Your task to perform on an android device: change notification settings in the gmail app Image 0: 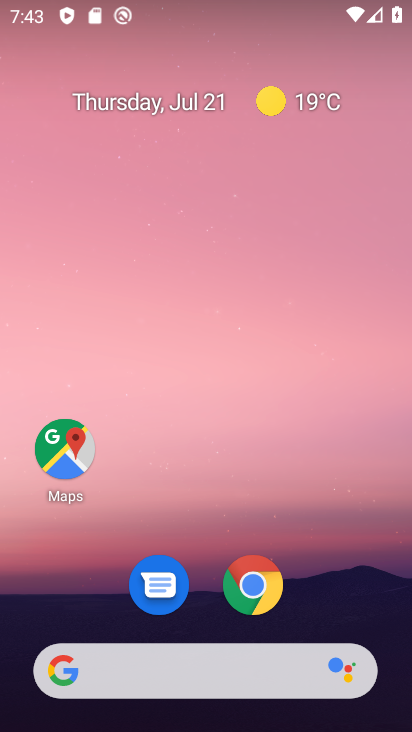
Step 0: drag from (324, 552) to (298, 108)
Your task to perform on an android device: change notification settings in the gmail app Image 1: 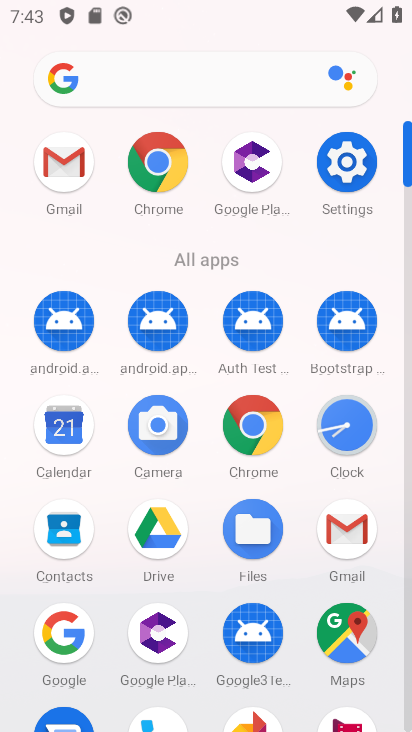
Step 1: click (75, 180)
Your task to perform on an android device: change notification settings in the gmail app Image 2: 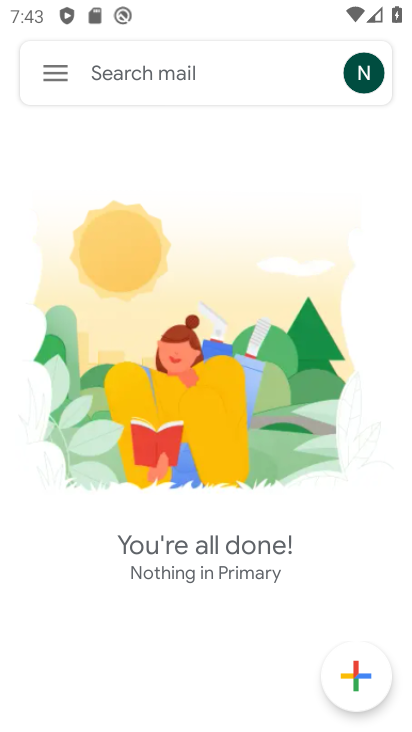
Step 2: click (59, 73)
Your task to perform on an android device: change notification settings in the gmail app Image 3: 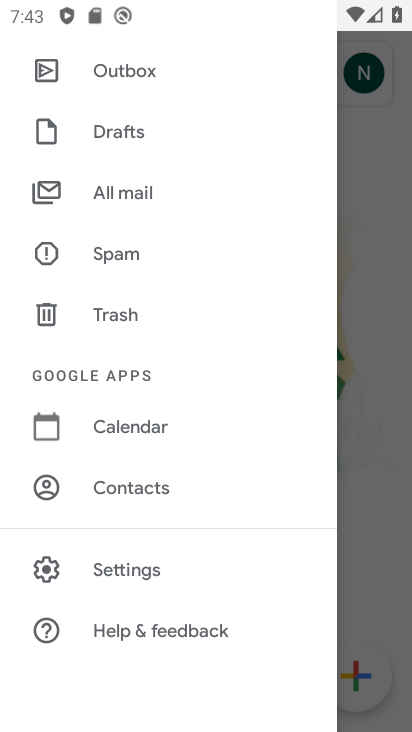
Step 3: click (138, 563)
Your task to perform on an android device: change notification settings in the gmail app Image 4: 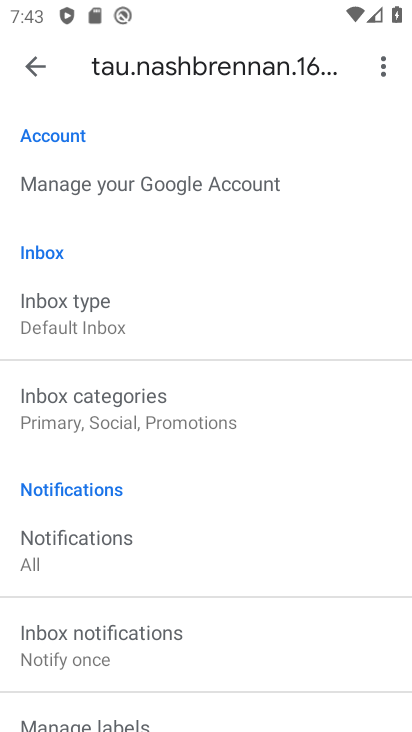
Step 4: drag from (215, 417) to (250, 127)
Your task to perform on an android device: change notification settings in the gmail app Image 5: 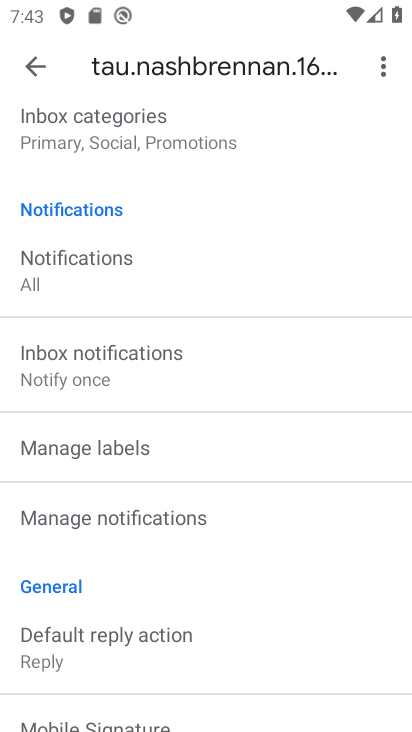
Step 5: click (184, 520)
Your task to perform on an android device: change notification settings in the gmail app Image 6: 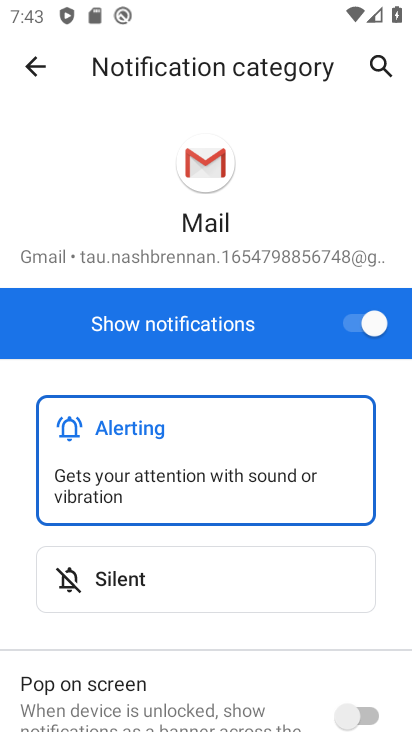
Step 6: click (369, 328)
Your task to perform on an android device: change notification settings in the gmail app Image 7: 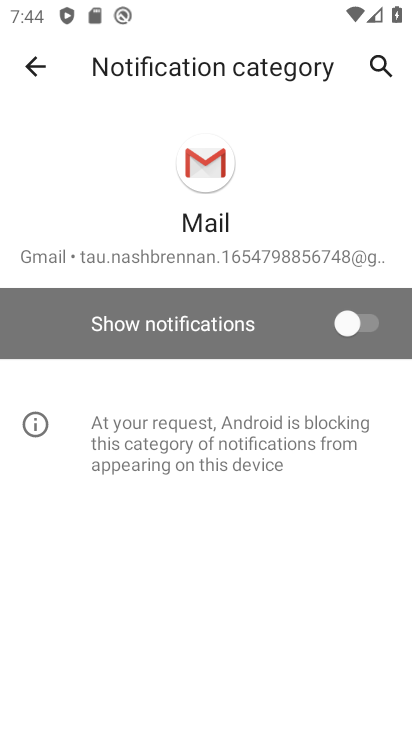
Step 7: task complete